Your task to perform on an android device: Go to ESPN.com Image 0: 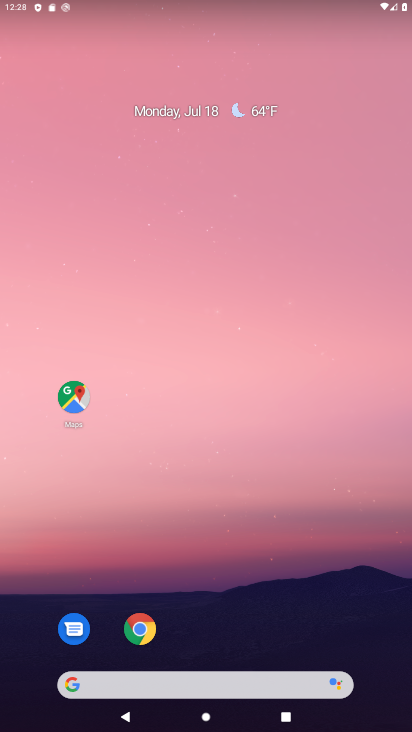
Step 0: drag from (237, 523) to (173, 71)
Your task to perform on an android device: Go to ESPN.com Image 1: 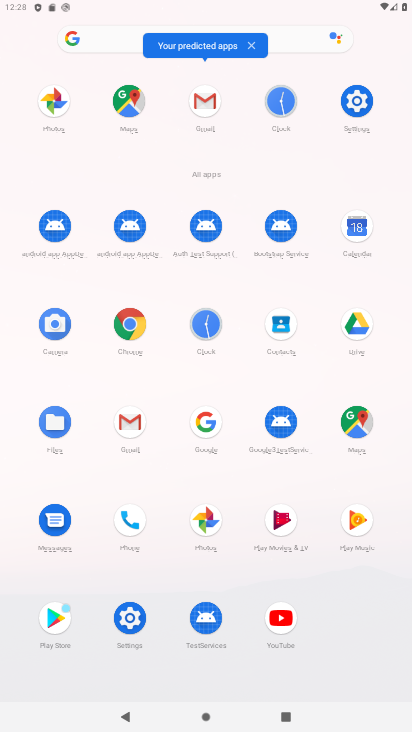
Step 1: click (133, 327)
Your task to perform on an android device: Go to ESPN.com Image 2: 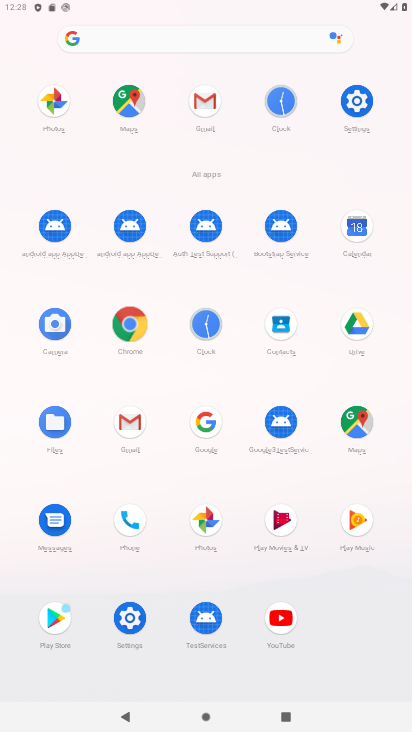
Step 2: click (134, 334)
Your task to perform on an android device: Go to ESPN.com Image 3: 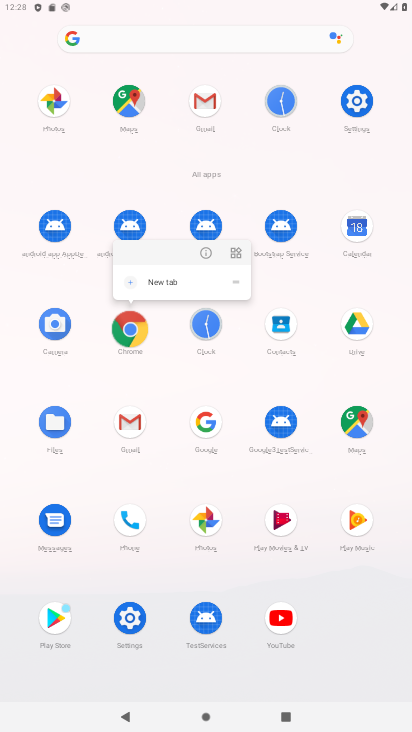
Step 3: click (132, 336)
Your task to perform on an android device: Go to ESPN.com Image 4: 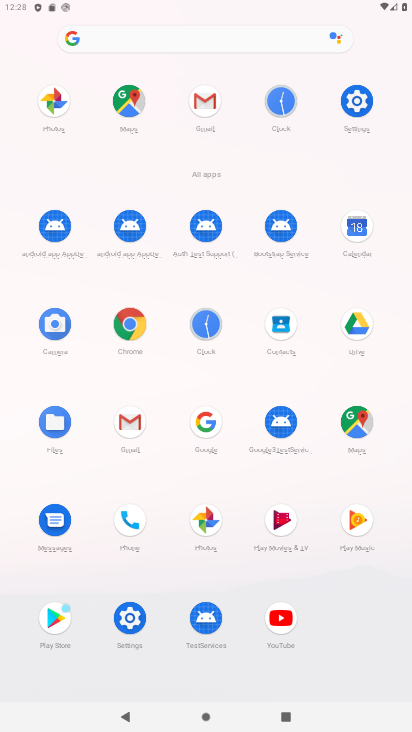
Step 4: click (134, 335)
Your task to perform on an android device: Go to ESPN.com Image 5: 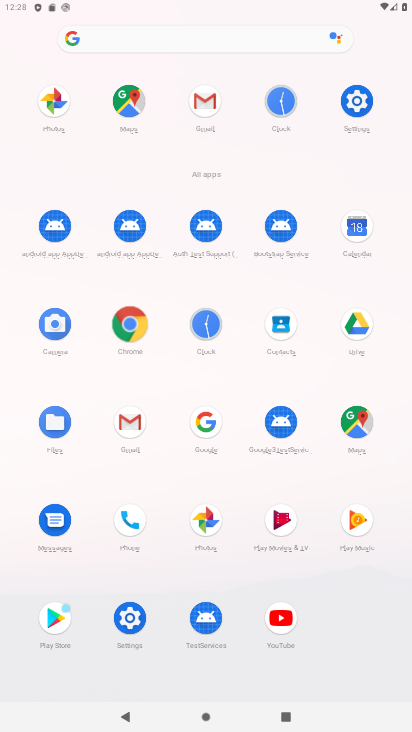
Step 5: click (134, 332)
Your task to perform on an android device: Go to ESPN.com Image 6: 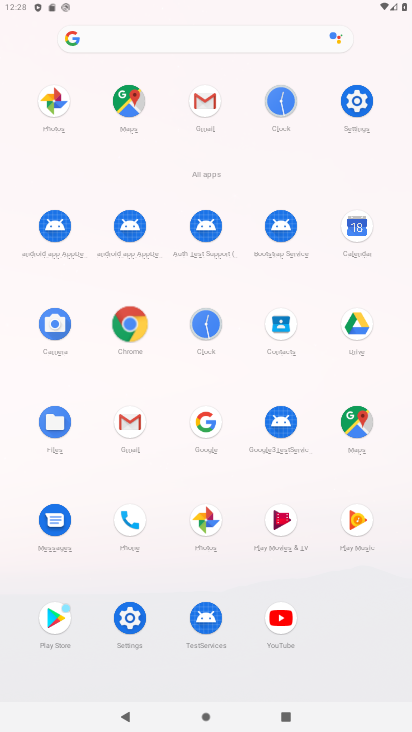
Step 6: click (136, 342)
Your task to perform on an android device: Go to ESPN.com Image 7: 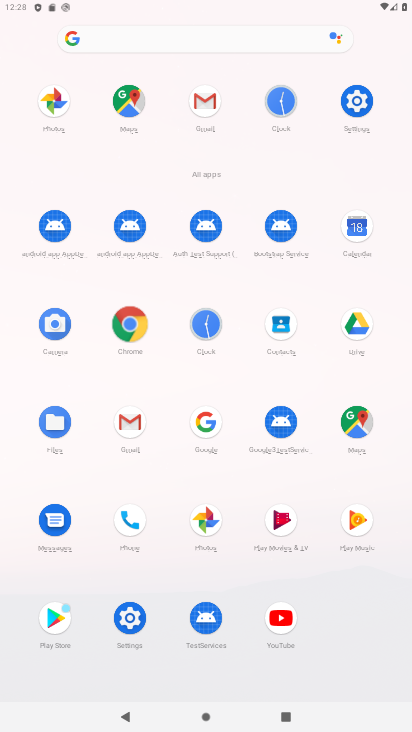
Step 7: click (133, 344)
Your task to perform on an android device: Go to ESPN.com Image 8: 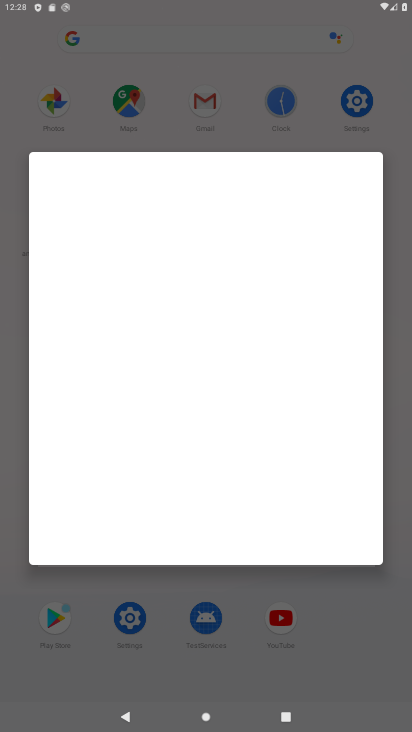
Step 8: click (132, 326)
Your task to perform on an android device: Go to ESPN.com Image 9: 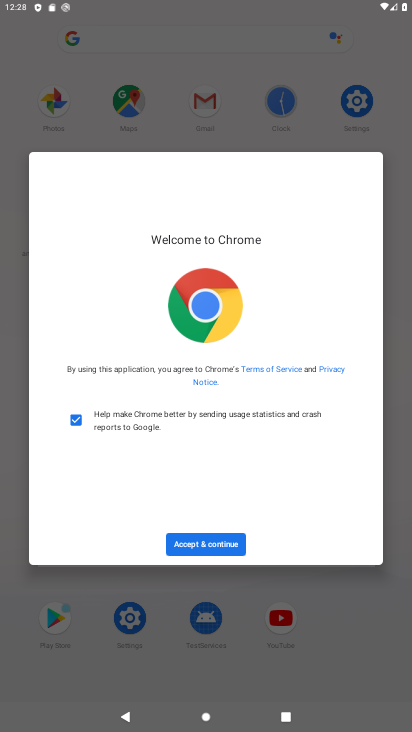
Step 9: drag from (209, 528) to (222, 559)
Your task to perform on an android device: Go to ESPN.com Image 10: 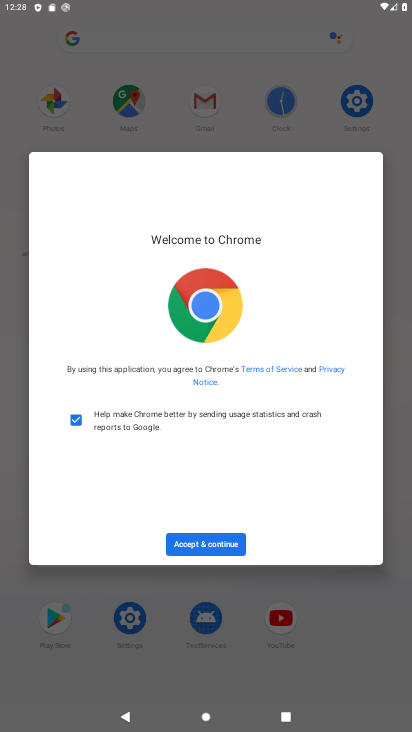
Step 10: click (223, 559)
Your task to perform on an android device: Go to ESPN.com Image 11: 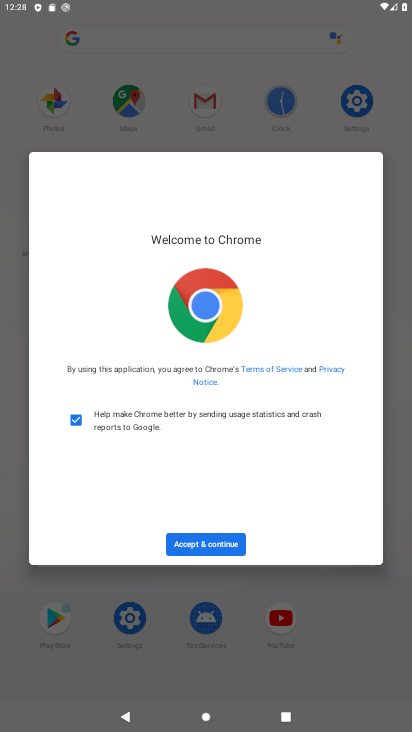
Step 11: click (225, 570)
Your task to perform on an android device: Go to ESPN.com Image 12: 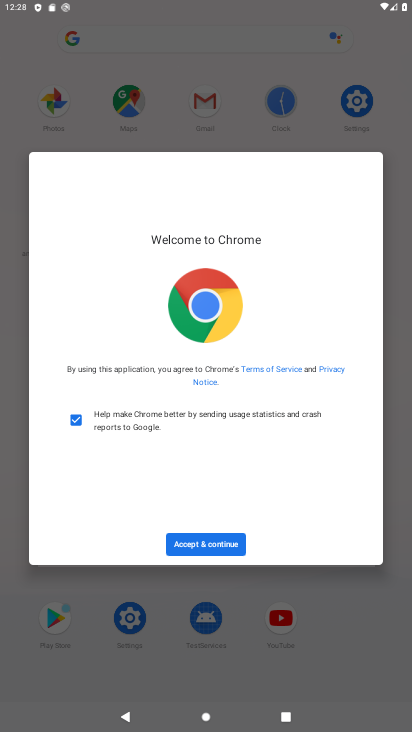
Step 12: click (226, 568)
Your task to perform on an android device: Go to ESPN.com Image 13: 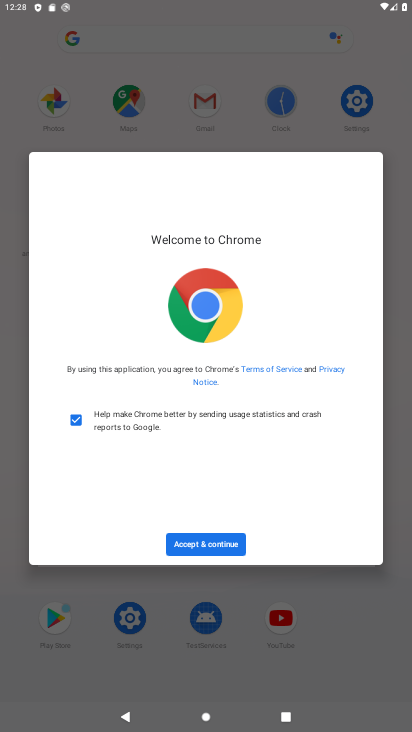
Step 13: click (220, 543)
Your task to perform on an android device: Go to ESPN.com Image 14: 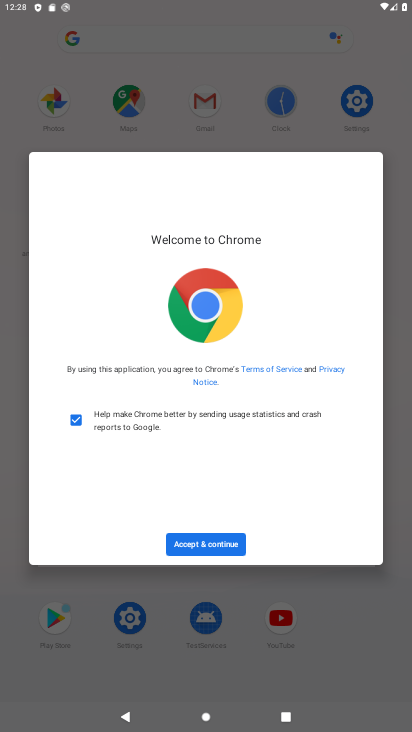
Step 14: click (221, 545)
Your task to perform on an android device: Go to ESPN.com Image 15: 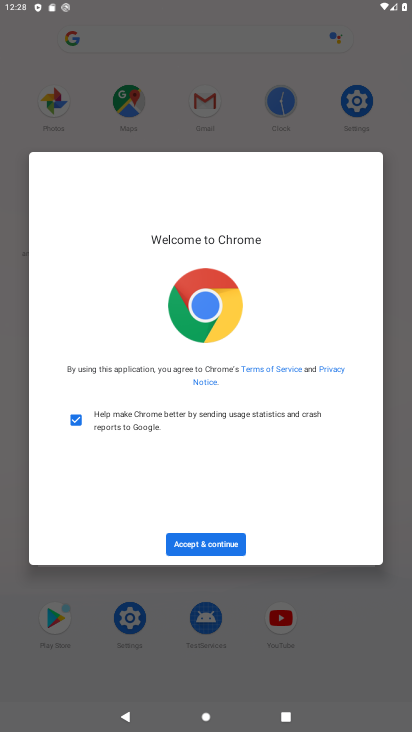
Step 15: click (224, 540)
Your task to perform on an android device: Go to ESPN.com Image 16: 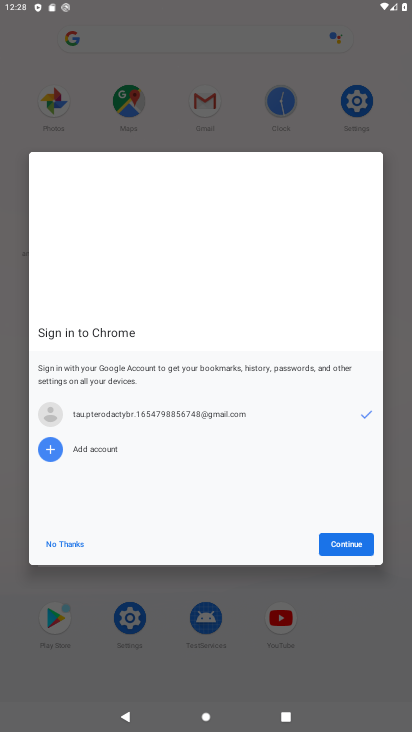
Step 16: click (224, 537)
Your task to perform on an android device: Go to ESPN.com Image 17: 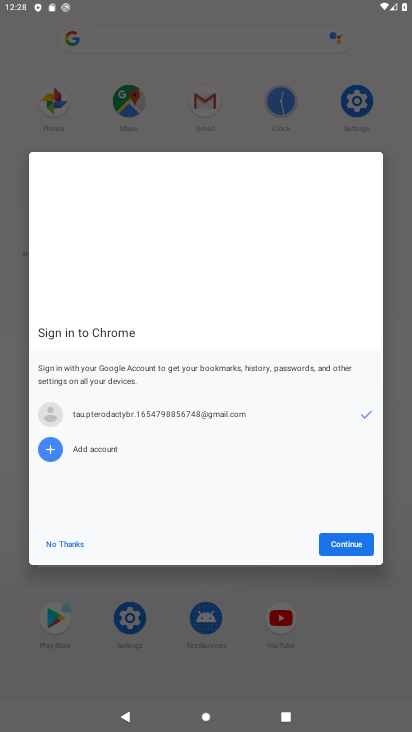
Step 17: click (366, 558)
Your task to perform on an android device: Go to ESPN.com Image 18: 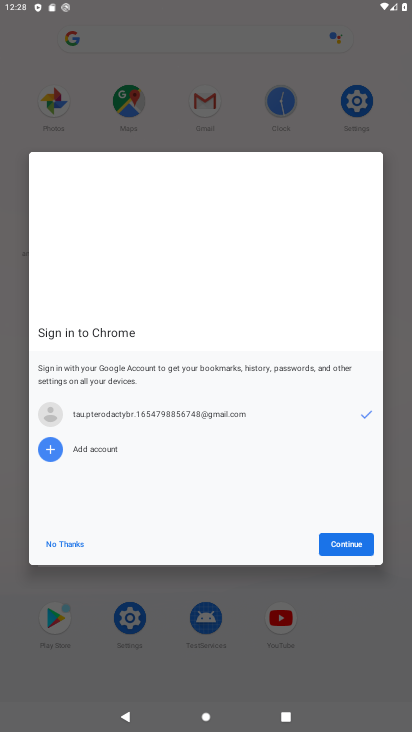
Step 18: drag from (364, 549) to (327, 537)
Your task to perform on an android device: Go to ESPN.com Image 19: 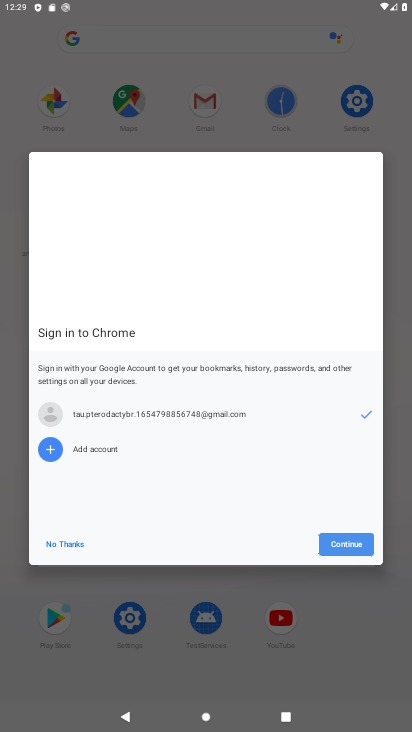
Step 19: click (326, 532)
Your task to perform on an android device: Go to ESPN.com Image 20: 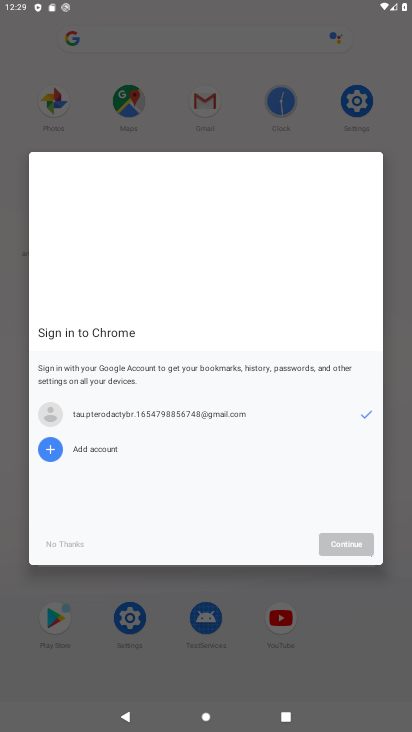
Step 20: click (333, 539)
Your task to perform on an android device: Go to ESPN.com Image 21: 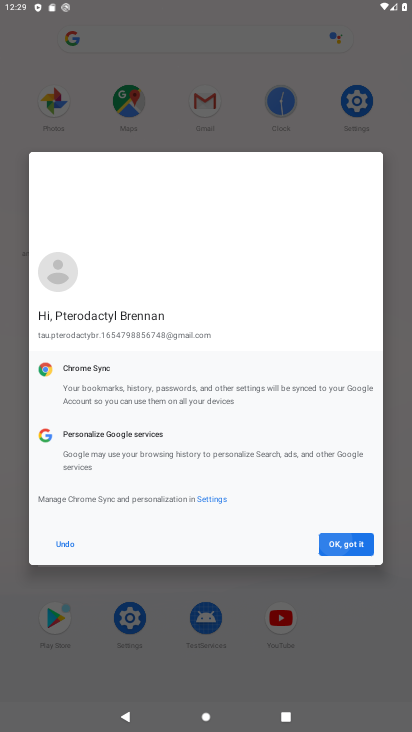
Step 21: click (339, 542)
Your task to perform on an android device: Go to ESPN.com Image 22: 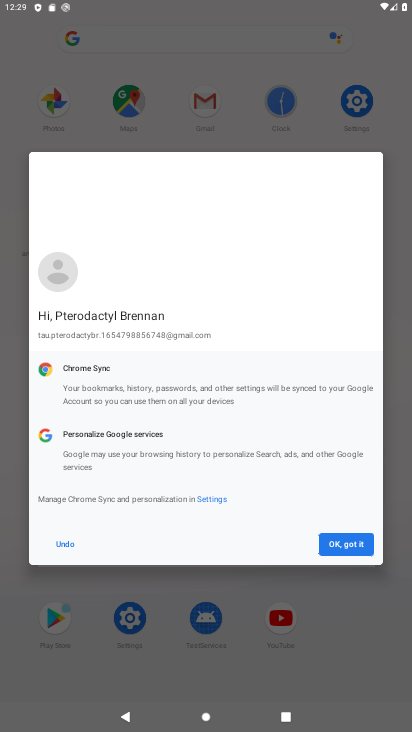
Step 22: click (341, 545)
Your task to perform on an android device: Go to ESPN.com Image 23: 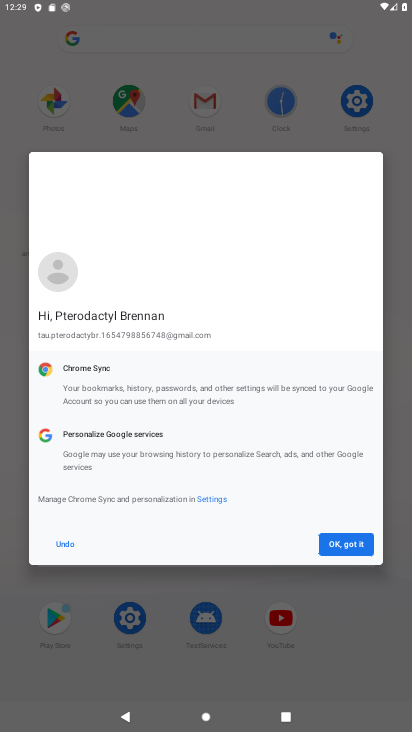
Step 23: click (338, 527)
Your task to perform on an android device: Go to ESPN.com Image 24: 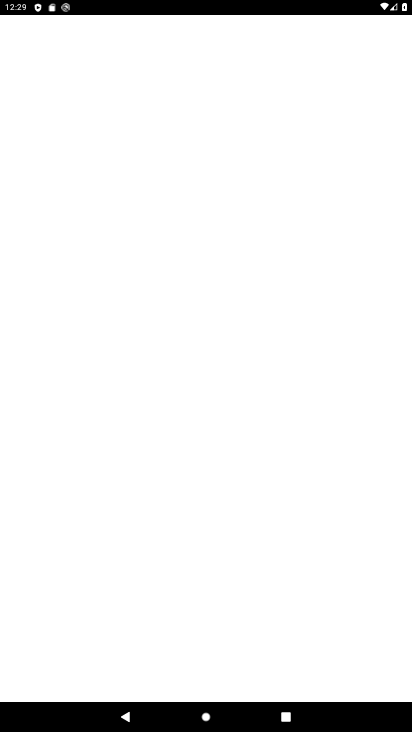
Step 24: click (341, 531)
Your task to perform on an android device: Go to ESPN.com Image 25: 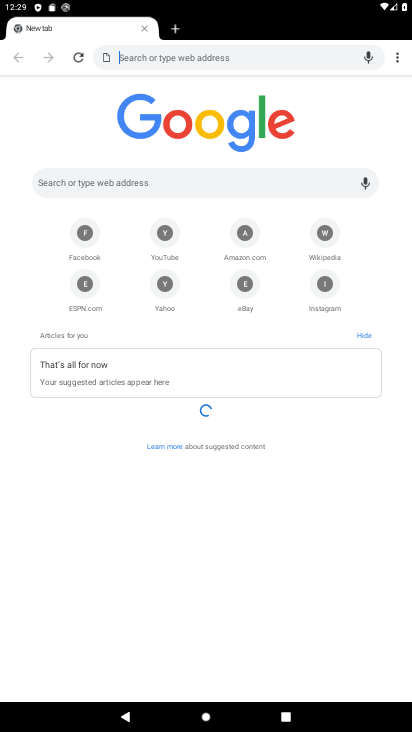
Step 25: click (84, 290)
Your task to perform on an android device: Go to ESPN.com Image 26: 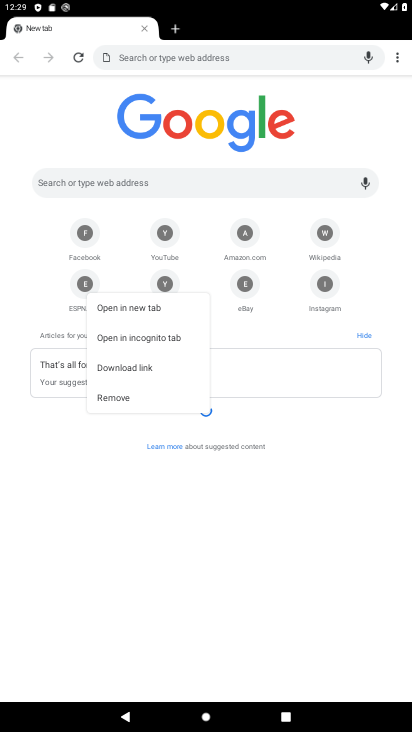
Step 26: click (72, 285)
Your task to perform on an android device: Go to ESPN.com Image 27: 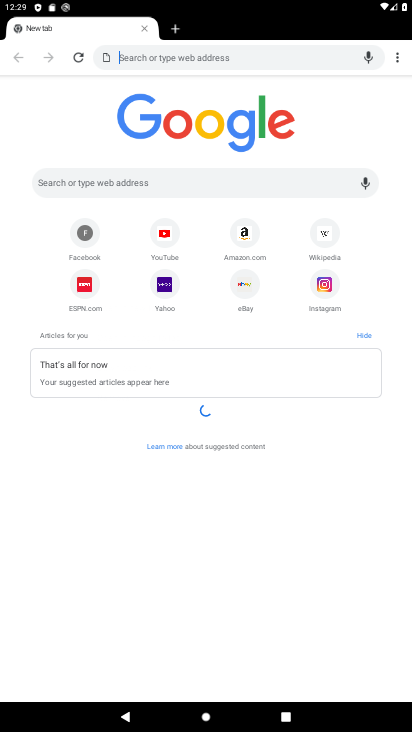
Step 27: click (83, 296)
Your task to perform on an android device: Go to ESPN.com Image 28: 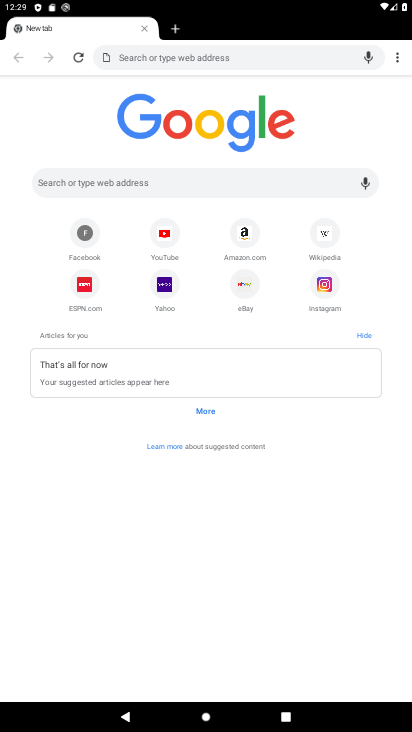
Step 28: click (86, 284)
Your task to perform on an android device: Go to ESPN.com Image 29: 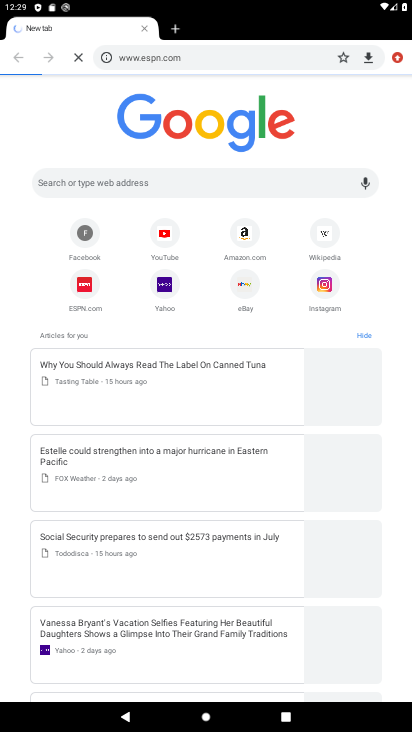
Step 29: click (80, 284)
Your task to perform on an android device: Go to ESPN.com Image 30: 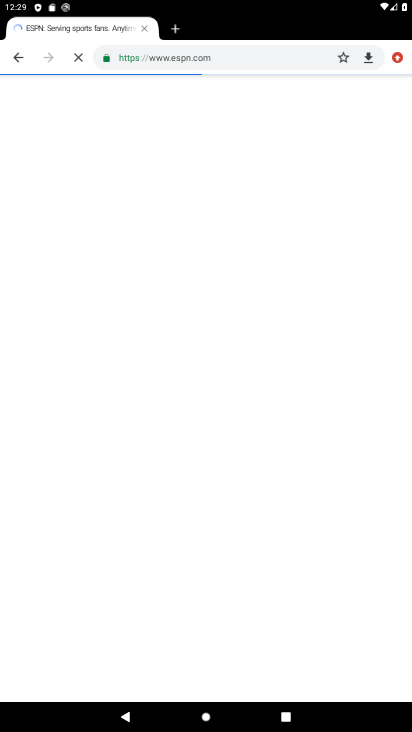
Step 30: click (92, 296)
Your task to perform on an android device: Go to ESPN.com Image 31: 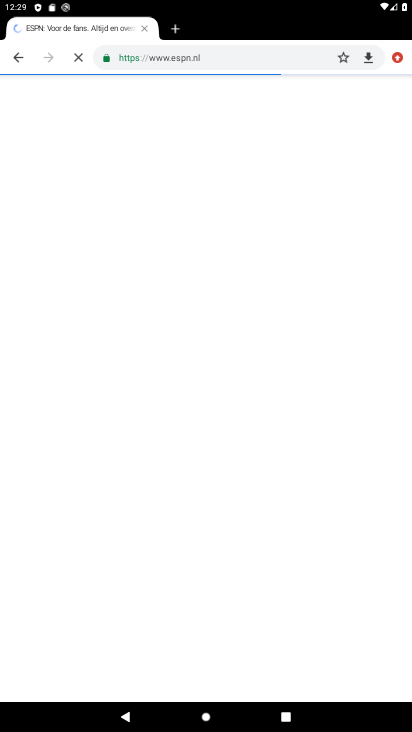
Step 31: task complete